Your task to perform on an android device: Open my contact list Image 0: 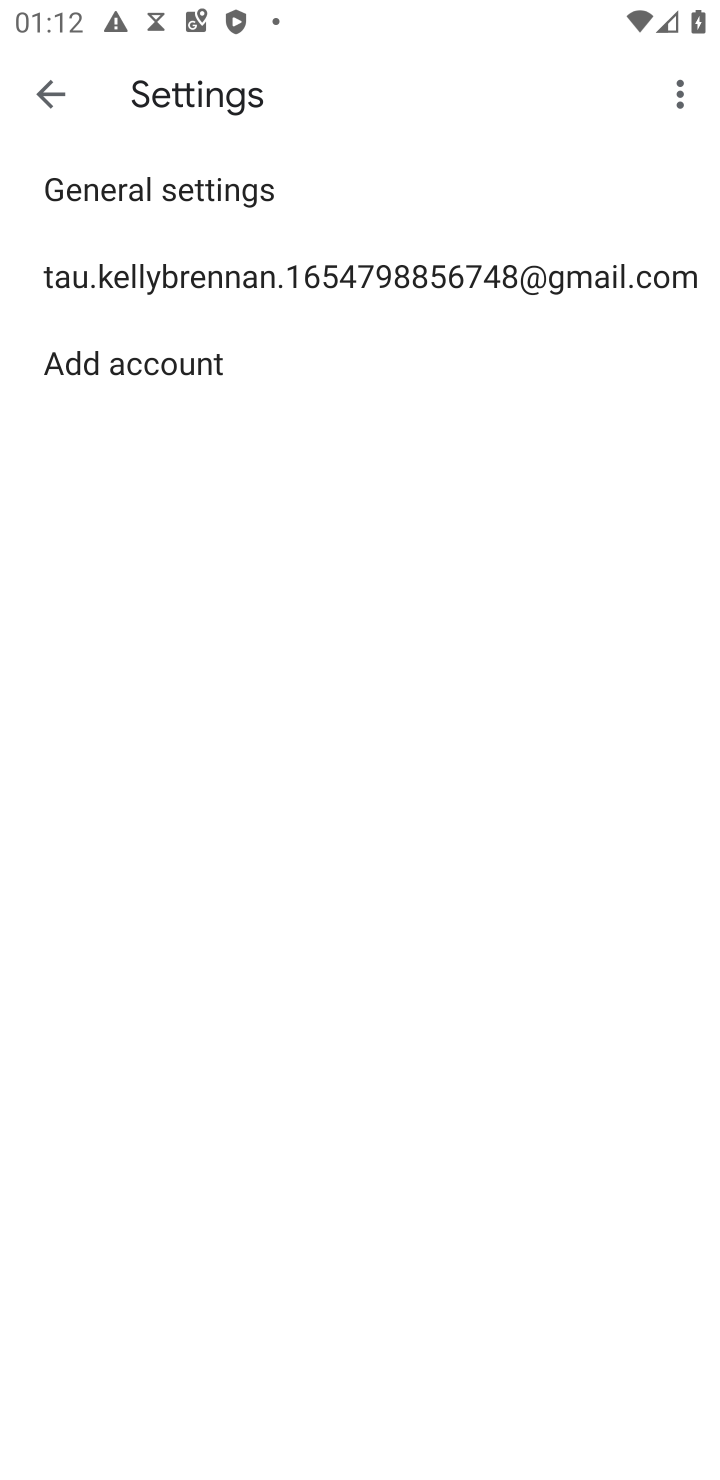
Step 0: press home button
Your task to perform on an android device: Open my contact list Image 1: 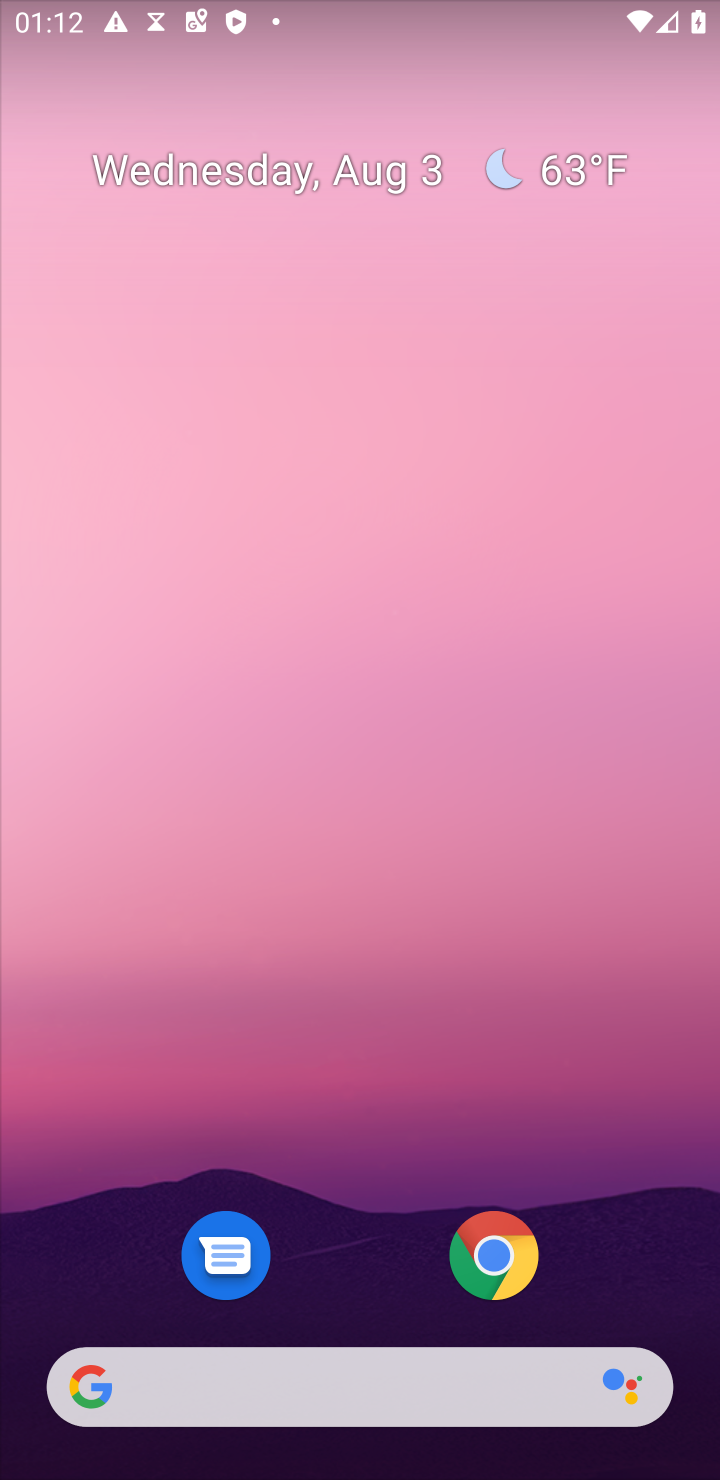
Step 1: drag from (626, 1256) to (394, 39)
Your task to perform on an android device: Open my contact list Image 2: 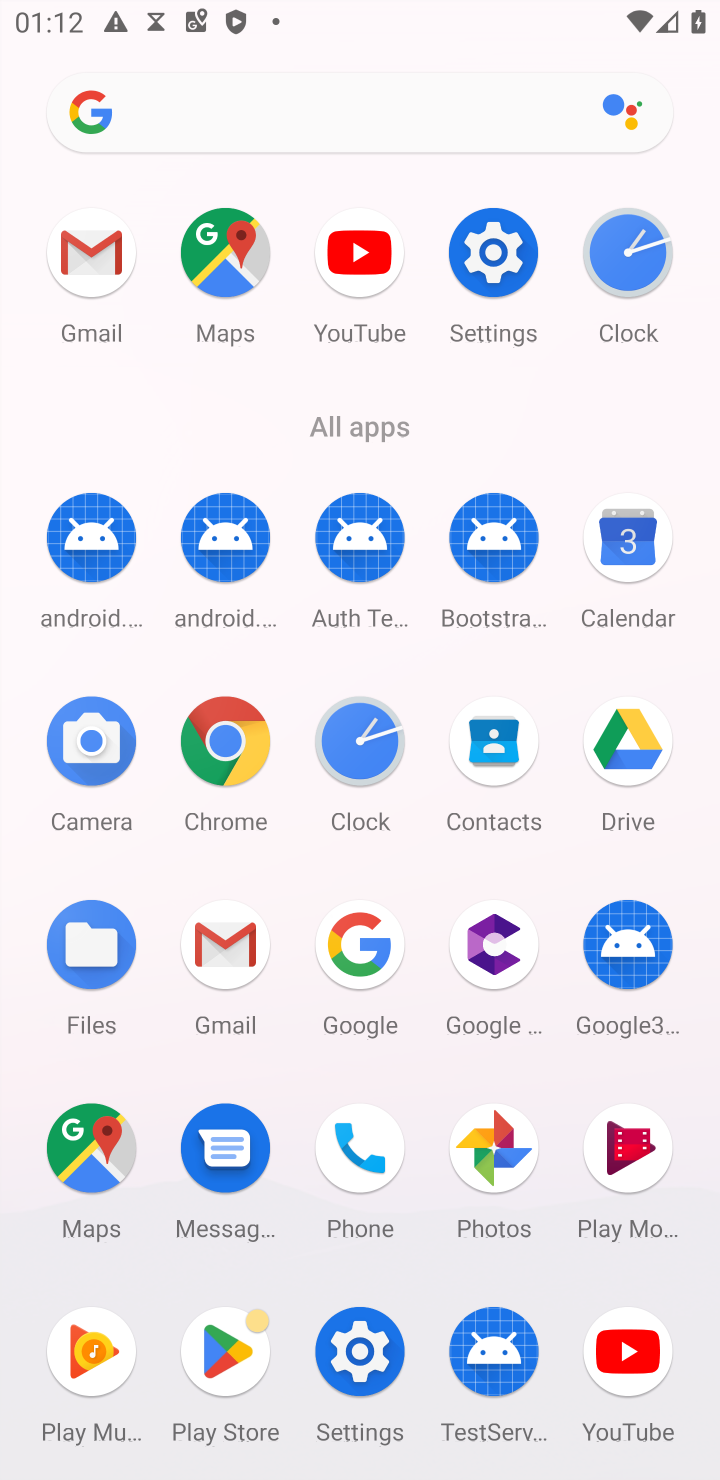
Step 2: click (502, 751)
Your task to perform on an android device: Open my contact list Image 3: 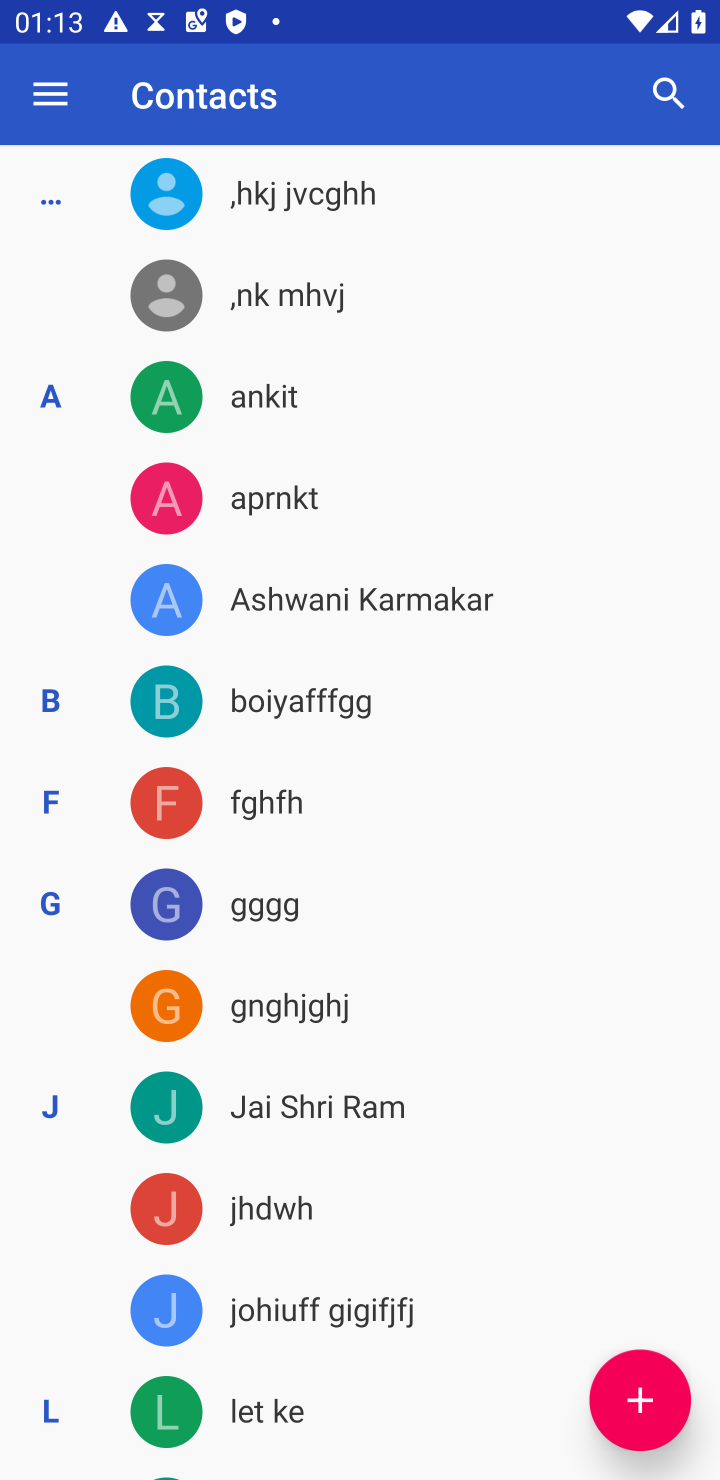
Step 3: task complete